Your task to perform on an android device: Search for pizza restaurants on Maps Image 0: 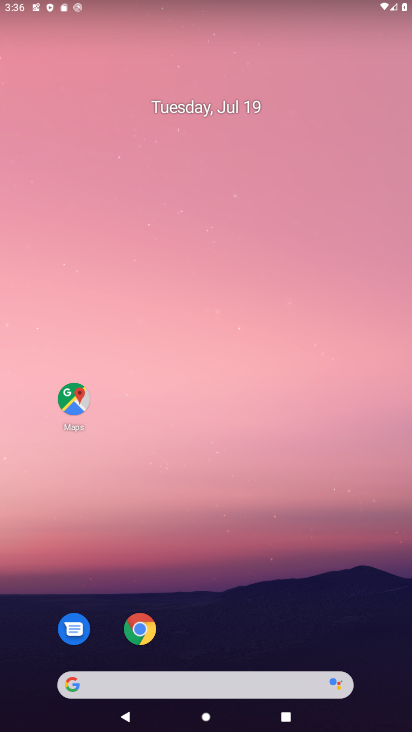
Step 0: click (68, 397)
Your task to perform on an android device: Search for pizza restaurants on Maps Image 1: 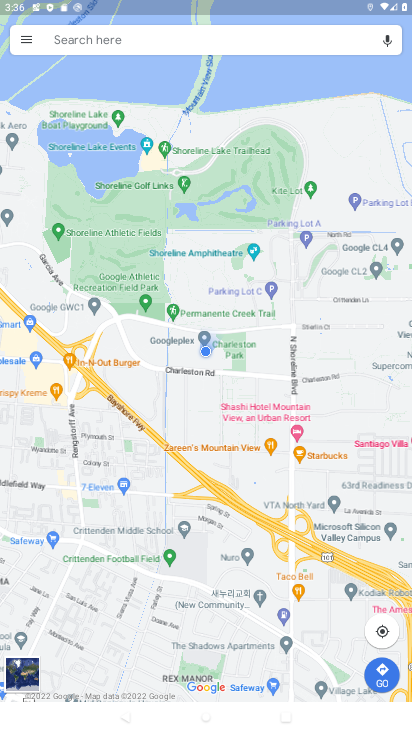
Step 1: click (83, 35)
Your task to perform on an android device: Search for pizza restaurants on Maps Image 2: 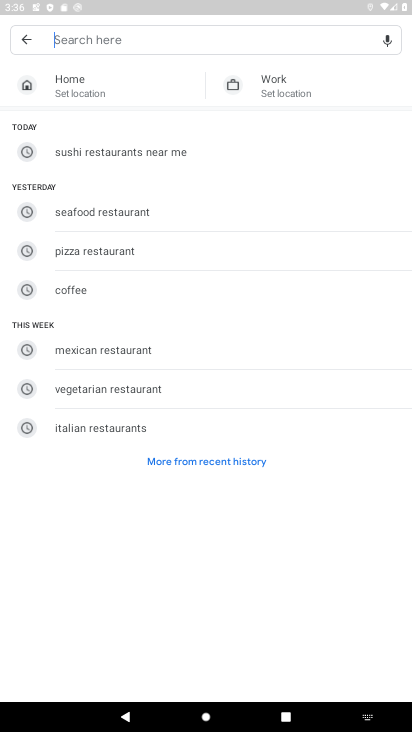
Step 2: click (90, 251)
Your task to perform on an android device: Search for pizza restaurants on Maps Image 3: 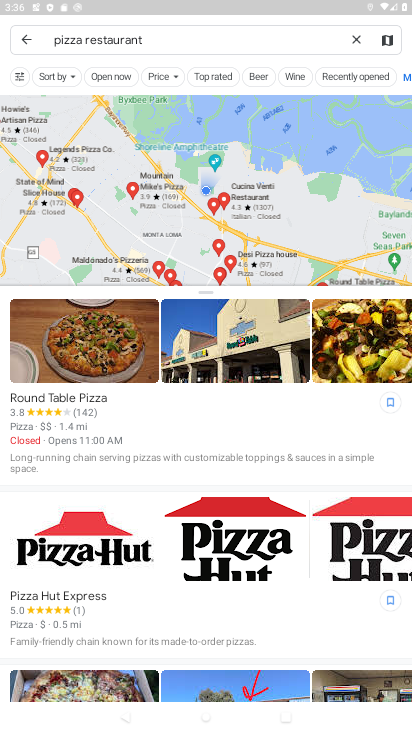
Step 3: task complete